Your task to perform on an android device: open app "Facebook Lite" (install if not already installed), go to login, and select forgot password Image 0: 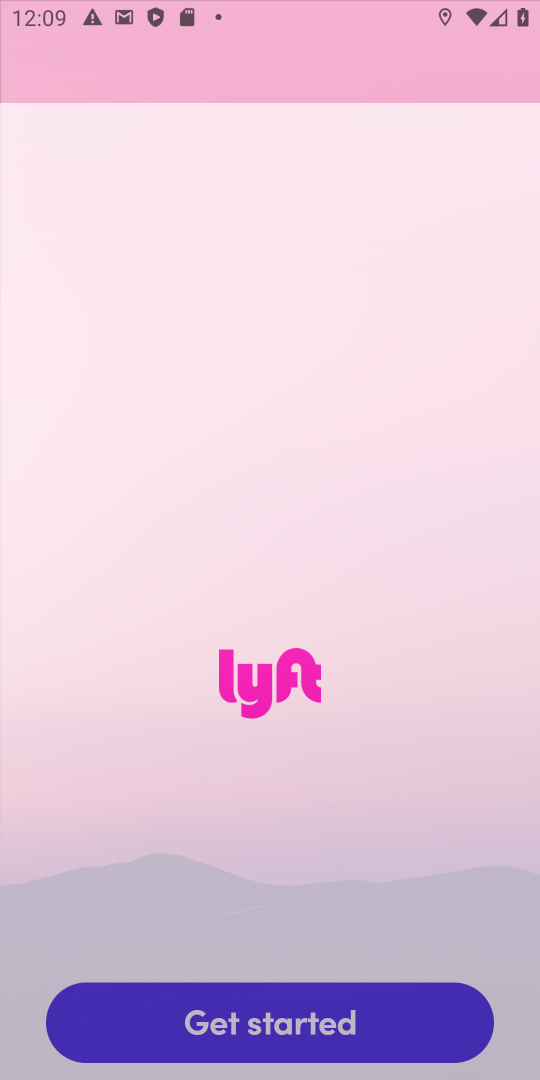
Step 0: press home button
Your task to perform on an android device: open app "Facebook Lite" (install if not already installed), go to login, and select forgot password Image 1: 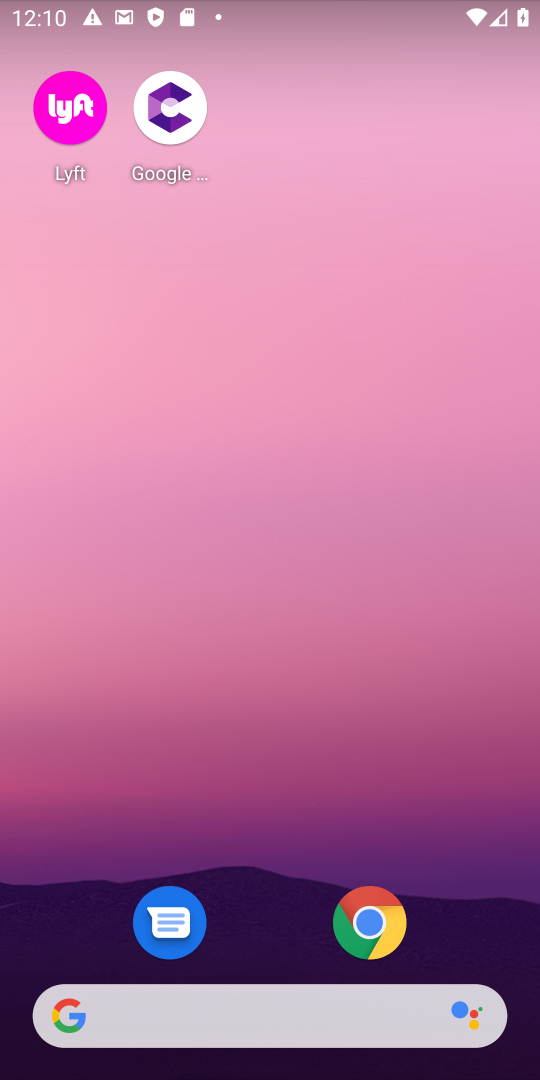
Step 1: drag from (270, 615) to (281, 154)
Your task to perform on an android device: open app "Facebook Lite" (install if not already installed), go to login, and select forgot password Image 2: 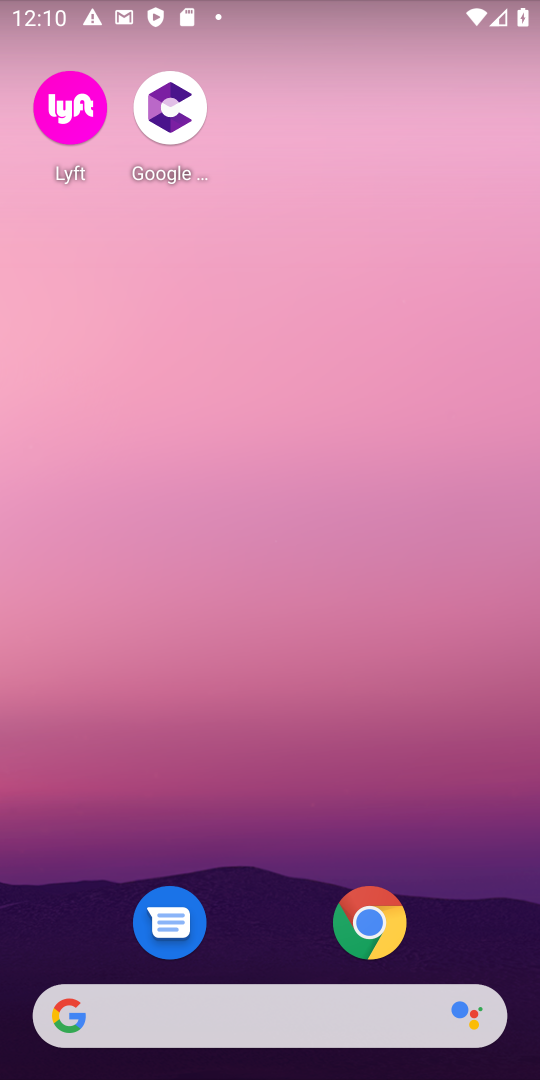
Step 2: drag from (258, 45) to (258, 121)
Your task to perform on an android device: open app "Facebook Lite" (install if not already installed), go to login, and select forgot password Image 3: 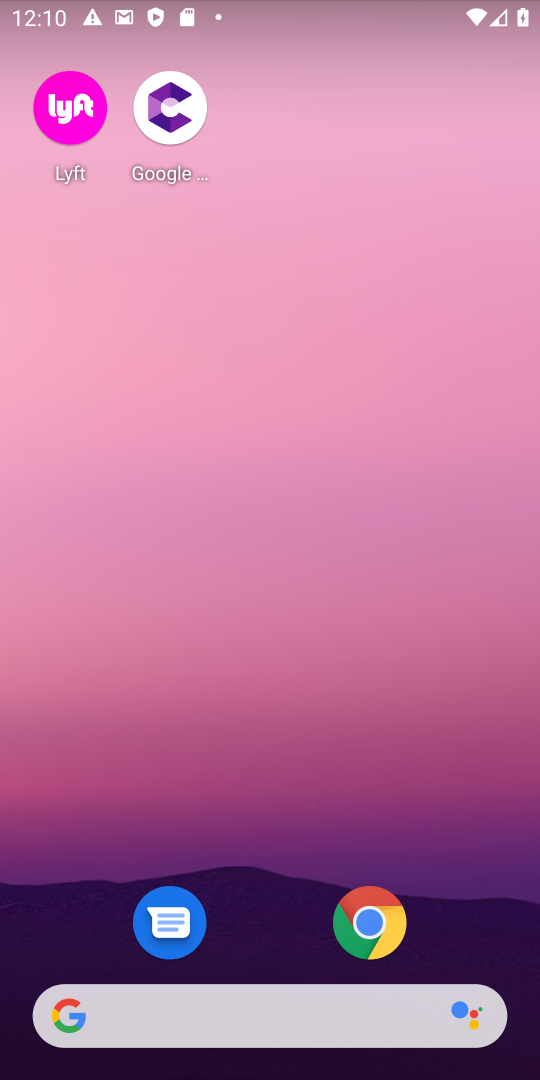
Step 3: drag from (274, 597) to (305, 72)
Your task to perform on an android device: open app "Facebook Lite" (install if not already installed), go to login, and select forgot password Image 4: 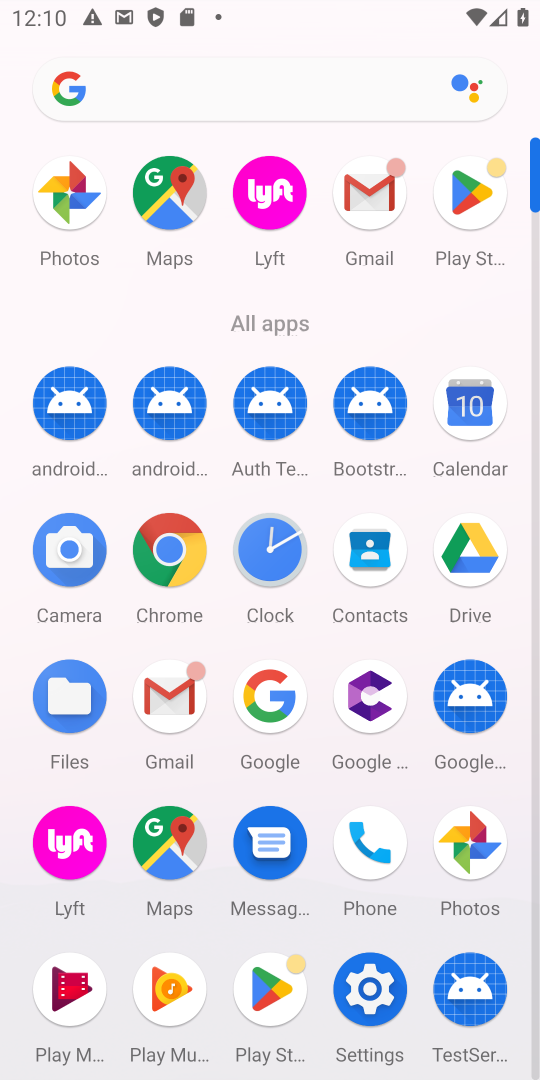
Step 4: click (275, 995)
Your task to perform on an android device: open app "Facebook Lite" (install if not already installed), go to login, and select forgot password Image 5: 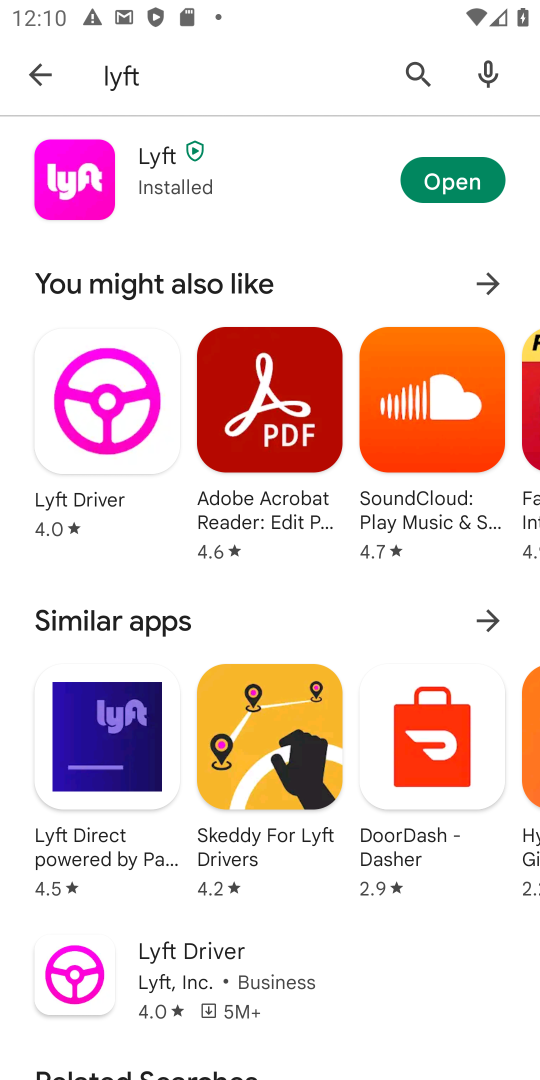
Step 5: click (36, 79)
Your task to perform on an android device: open app "Facebook Lite" (install if not already installed), go to login, and select forgot password Image 6: 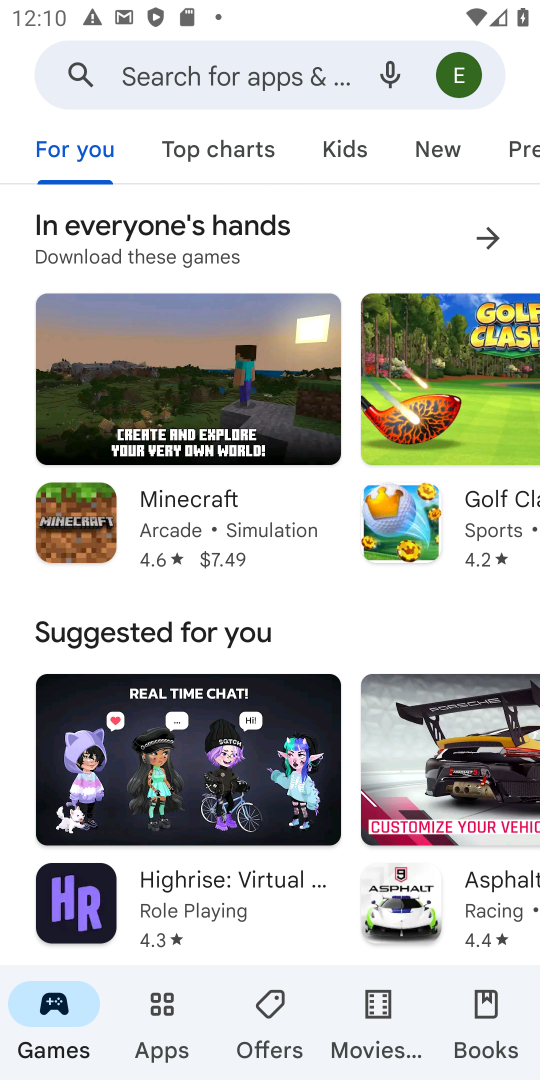
Step 6: click (179, 68)
Your task to perform on an android device: open app "Facebook Lite" (install if not already installed), go to login, and select forgot password Image 7: 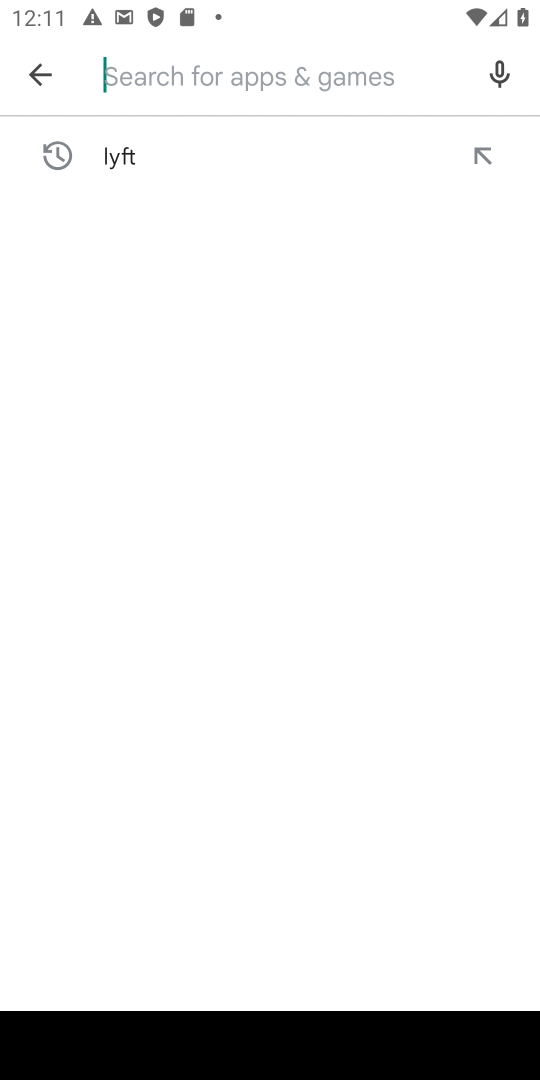
Step 7: type "Facebook Lite"
Your task to perform on an android device: open app "Facebook Lite" (install if not already installed), go to login, and select forgot password Image 8: 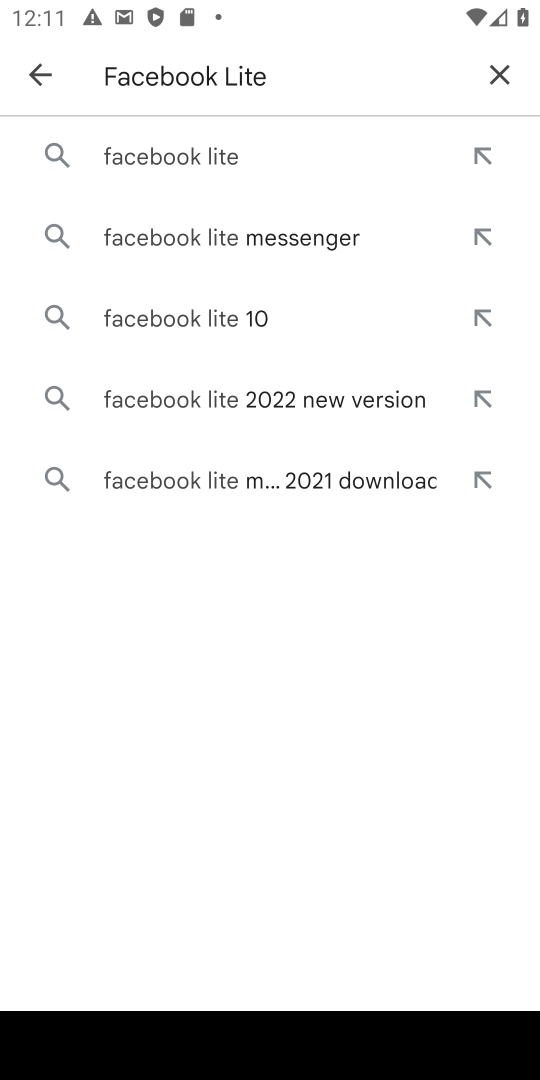
Step 8: click (150, 148)
Your task to perform on an android device: open app "Facebook Lite" (install if not already installed), go to login, and select forgot password Image 9: 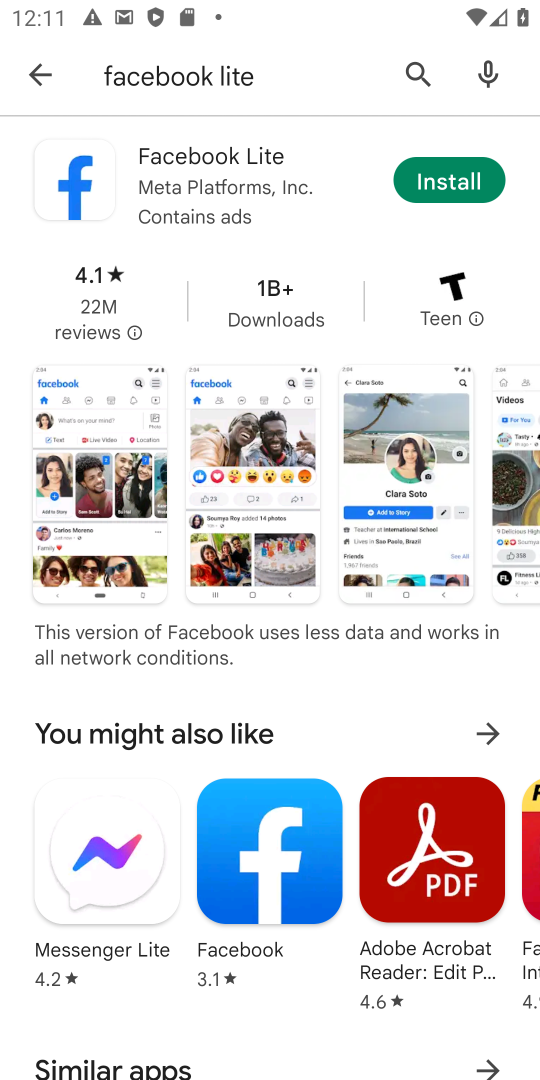
Step 9: click (453, 190)
Your task to perform on an android device: open app "Facebook Lite" (install if not already installed), go to login, and select forgot password Image 10: 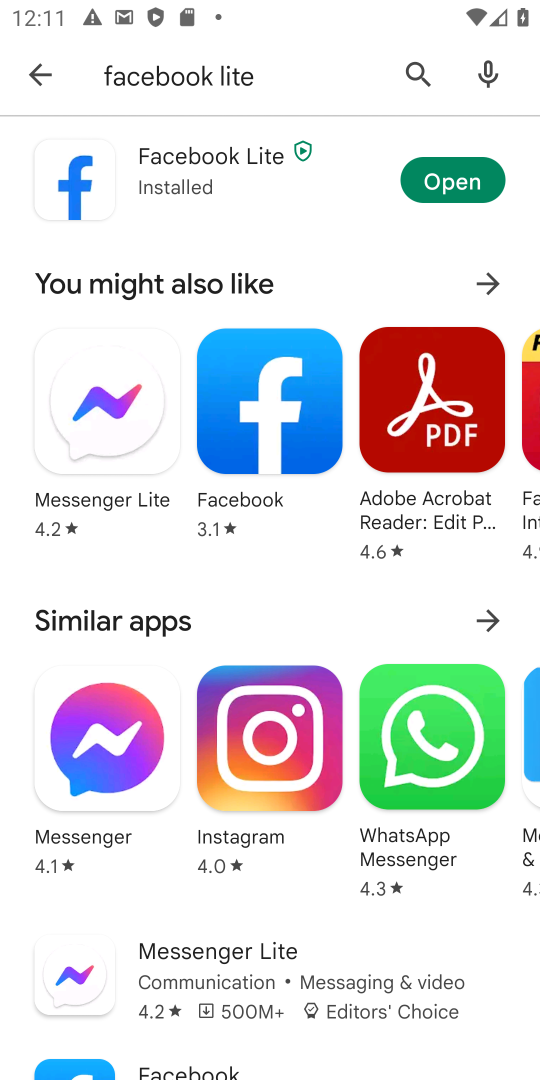
Step 10: click (453, 190)
Your task to perform on an android device: open app "Facebook Lite" (install if not already installed), go to login, and select forgot password Image 11: 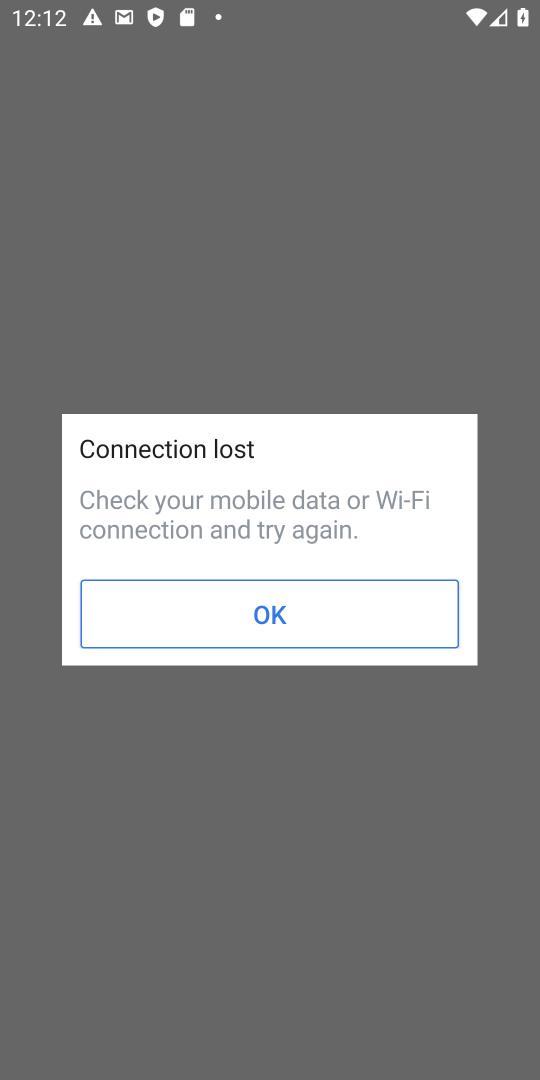
Step 11: click (286, 618)
Your task to perform on an android device: open app "Facebook Lite" (install if not already installed), go to login, and select forgot password Image 12: 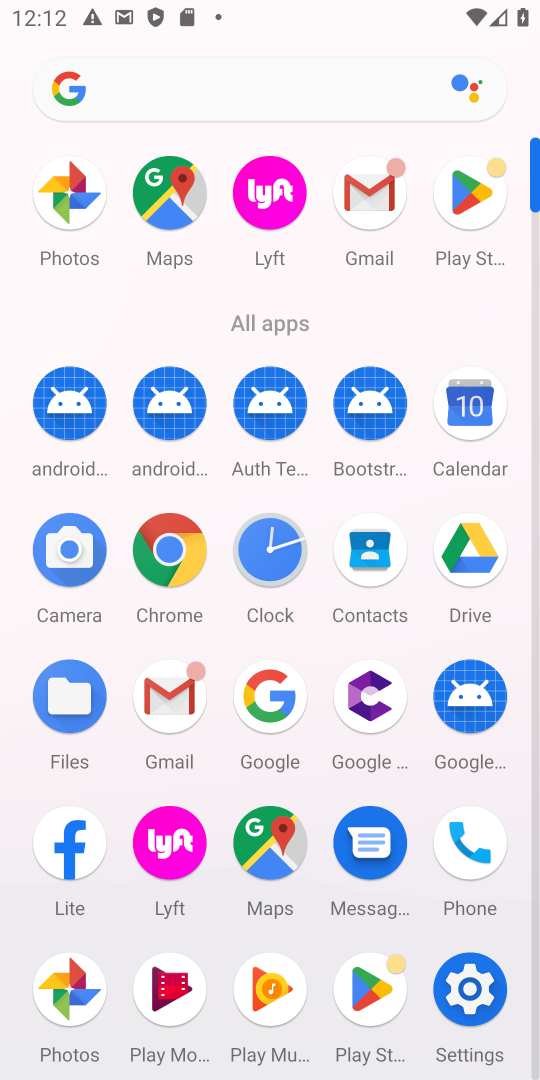
Step 12: task complete